Your task to perform on an android device: turn on translation in the chrome app Image 0: 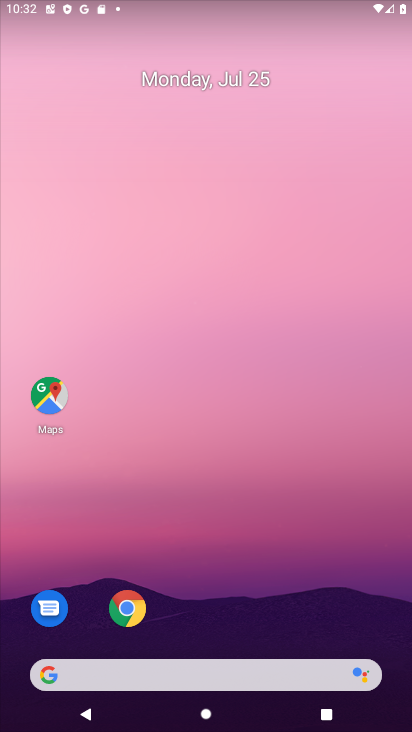
Step 0: drag from (194, 684) to (291, 124)
Your task to perform on an android device: turn on translation in the chrome app Image 1: 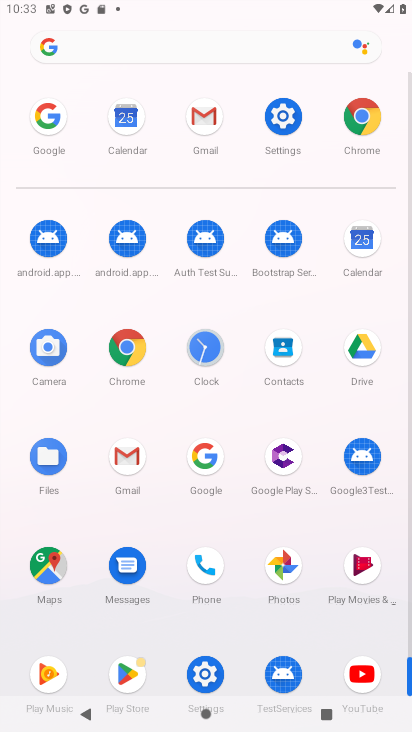
Step 1: click (358, 123)
Your task to perform on an android device: turn on translation in the chrome app Image 2: 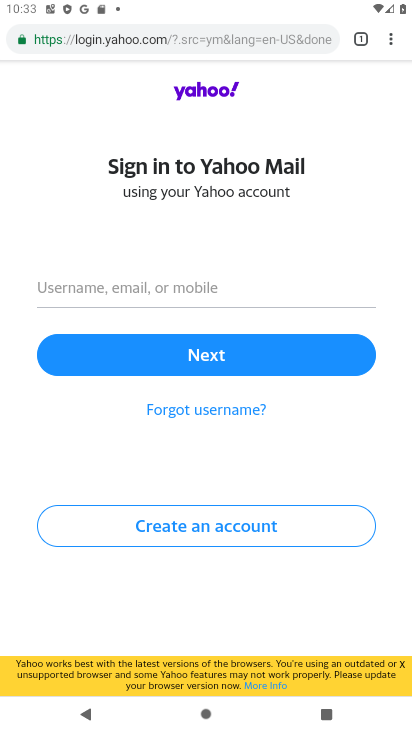
Step 2: click (385, 41)
Your task to perform on an android device: turn on translation in the chrome app Image 3: 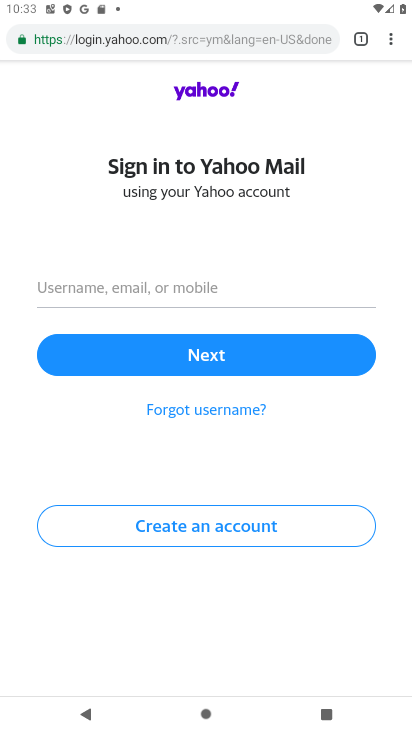
Step 3: click (388, 43)
Your task to perform on an android device: turn on translation in the chrome app Image 4: 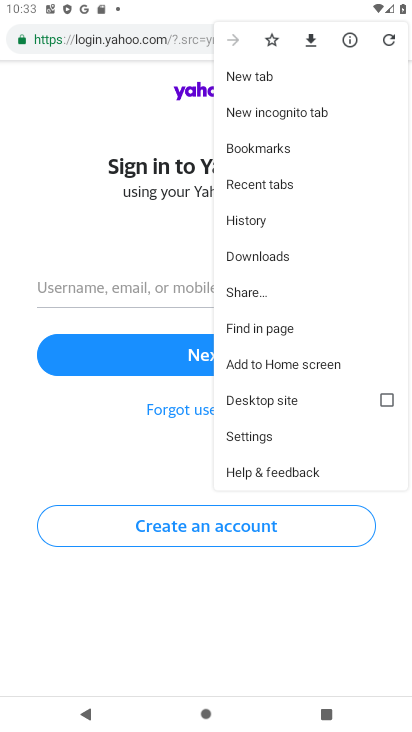
Step 4: click (248, 433)
Your task to perform on an android device: turn on translation in the chrome app Image 5: 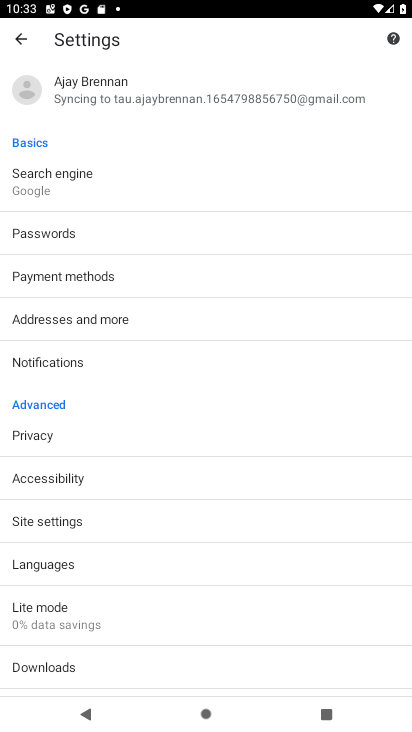
Step 5: click (18, 41)
Your task to perform on an android device: turn on translation in the chrome app Image 6: 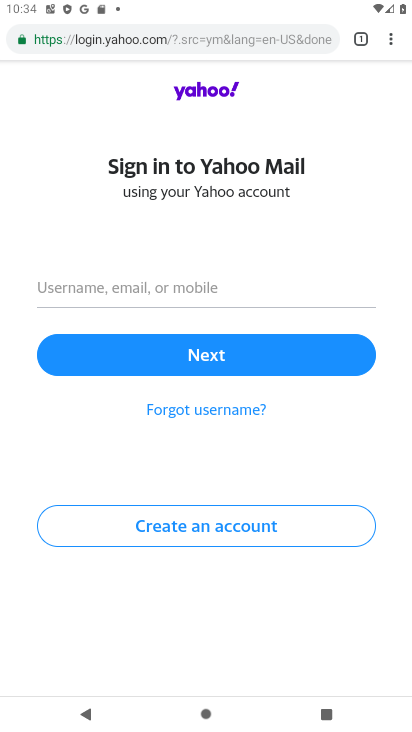
Step 6: click (397, 39)
Your task to perform on an android device: turn on translation in the chrome app Image 7: 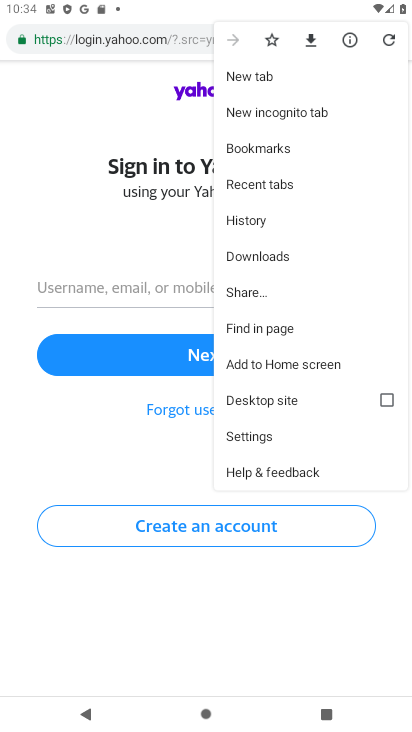
Step 7: task complete